Your task to perform on an android device: Check the news Image 0: 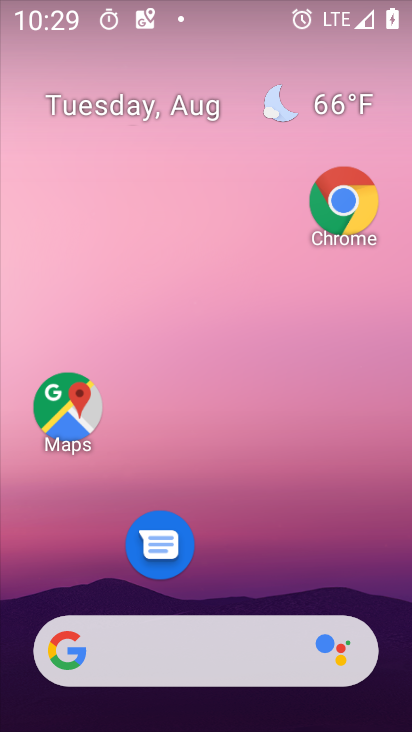
Step 0: drag from (240, 673) to (216, 122)
Your task to perform on an android device: Check the news Image 1: 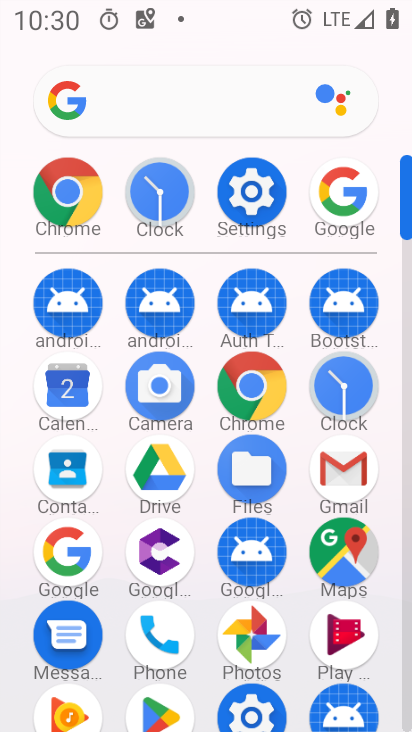
Step 1: drag from (177, 558) to (172, 187)
Your task to perform on an android device: Check the news Image 2: 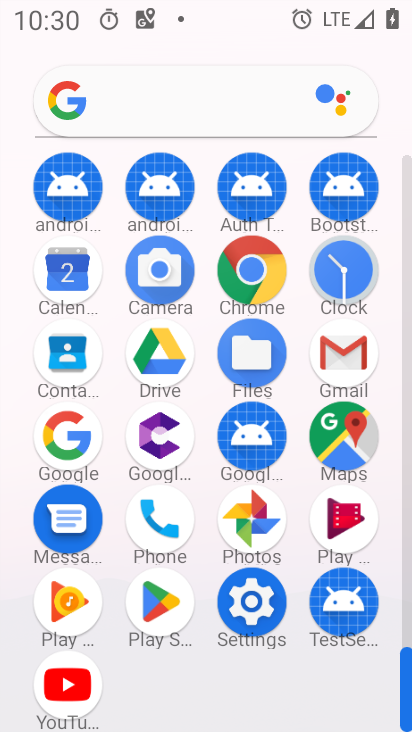
Step 2: drag from (211, 382) to (215, 625)
Your task to perform on an android device: Check the news Image 3: 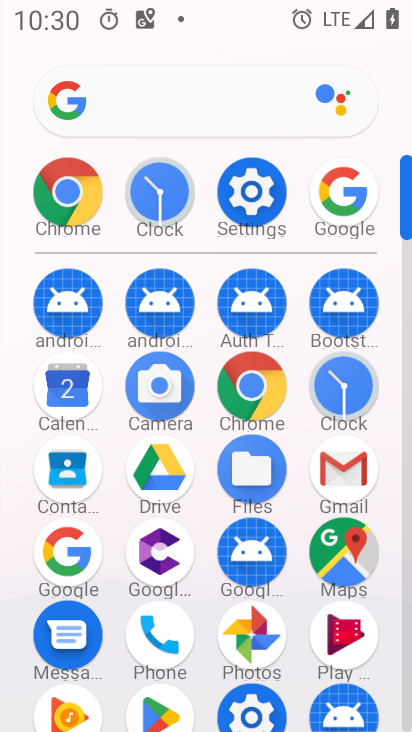
Step 3: drag from (240, 408) to (241, 47)
Your task to perform on an android device: Check the news Image 4: 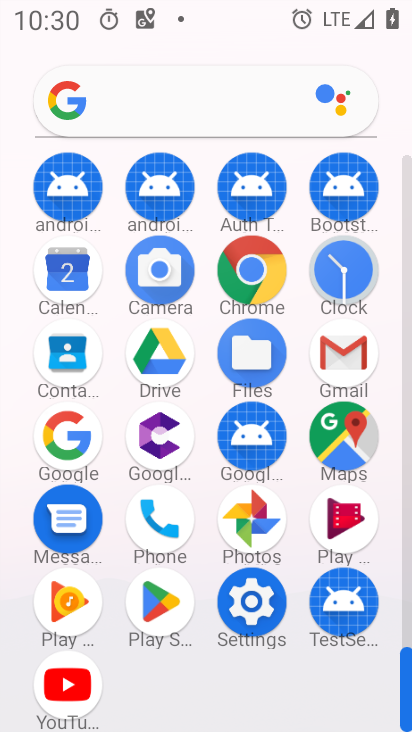
Step 4: click (81, 460)
Your task to perform on an android device: Check the news Image 5: 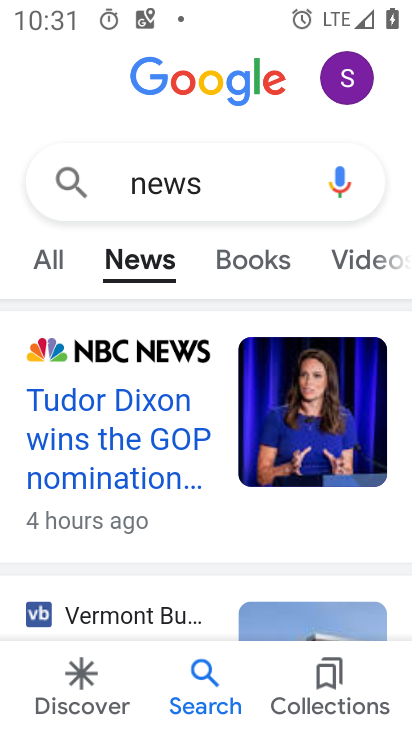
Step 5: task complete